Your task to perform on an android device: delete browsing data in the chrome app Image 0: 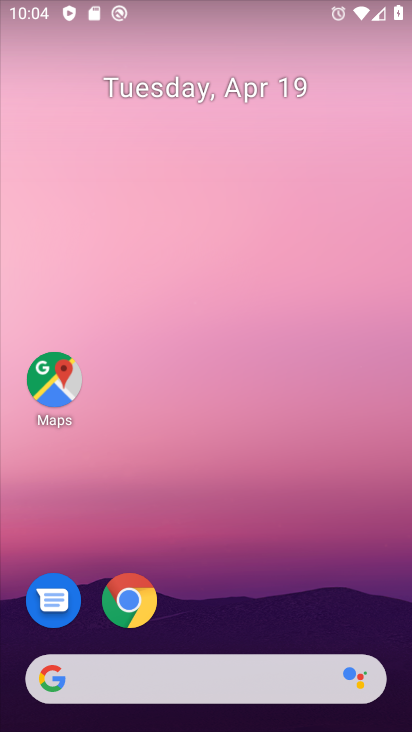
Step 0: click (129, 590)
Your task to perform on an android device: delete browsing data in the chrome app Image 1: 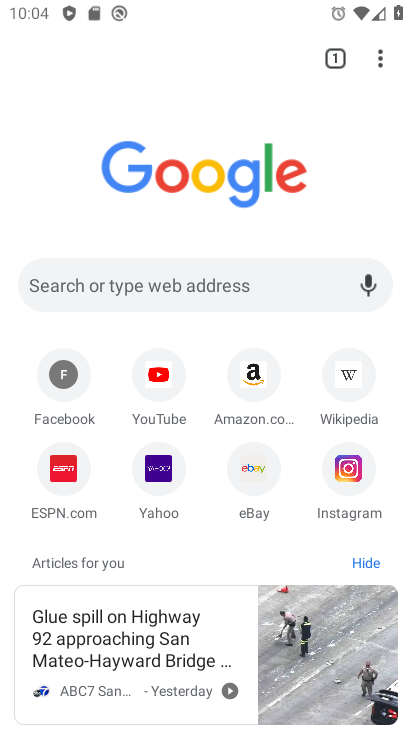
Step 1: click (386, 58)
Your task to perform on an android device: delete browsing data in the chrome app Image 2: 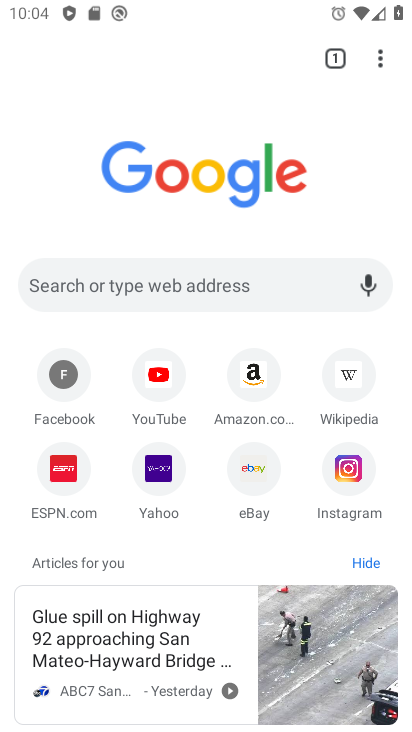
Step 2: click (384, 64)
Your task to perform on an android device: delete browsing data in the chrome app Image 3: 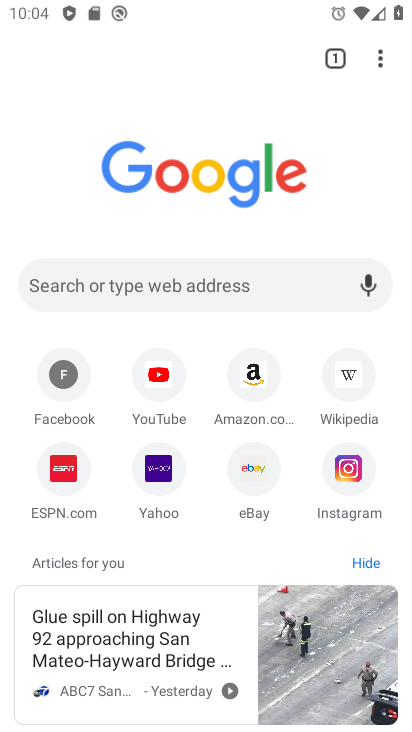
Step 3: click (389, 53)
Your task to perform on an android device: delete browsing data in the chrome app Image 4: 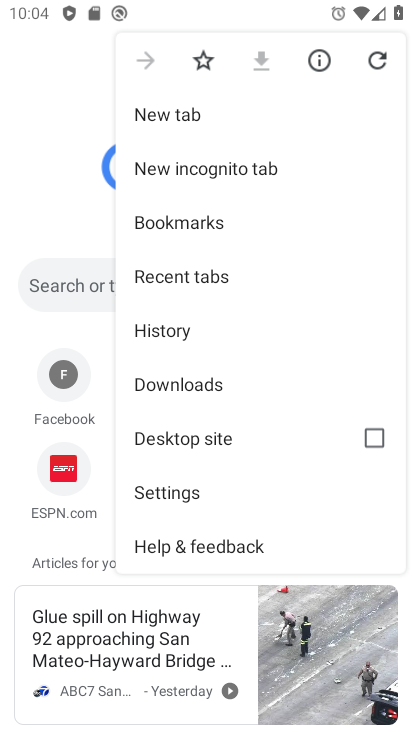
Step 4: click (183, 328)
Your task to perform on an android device: delete browsing data in the chrome app Image 5: 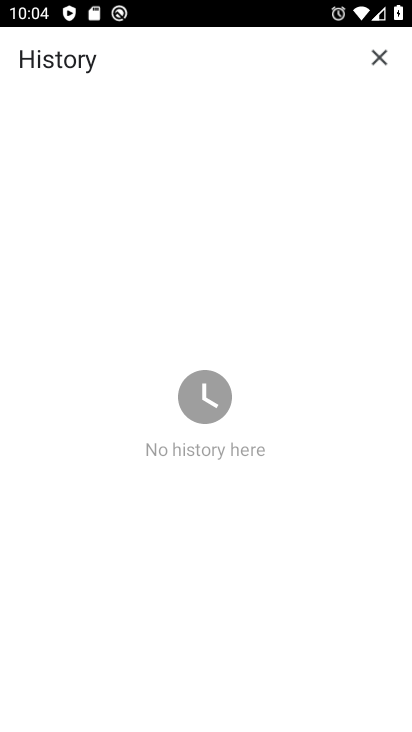
Step 5: task complete